Your task to perform on an android device: search for starred emails in the gmail app Image 0: 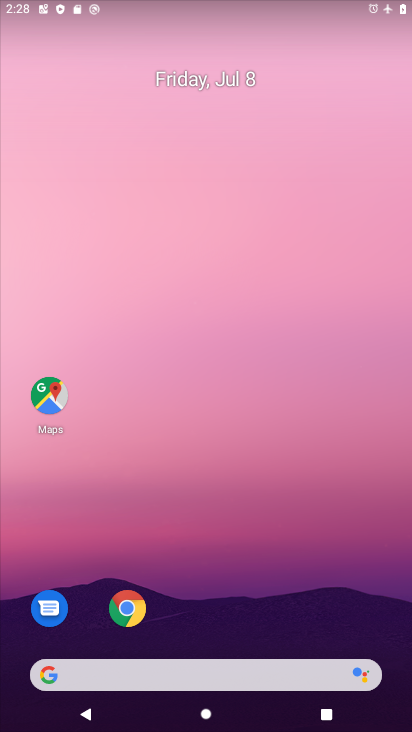
Step 0: drag from (161, 638) to (134, 133)
Your task to perform on an android device: search for starred emails in the gmail app Image 1: 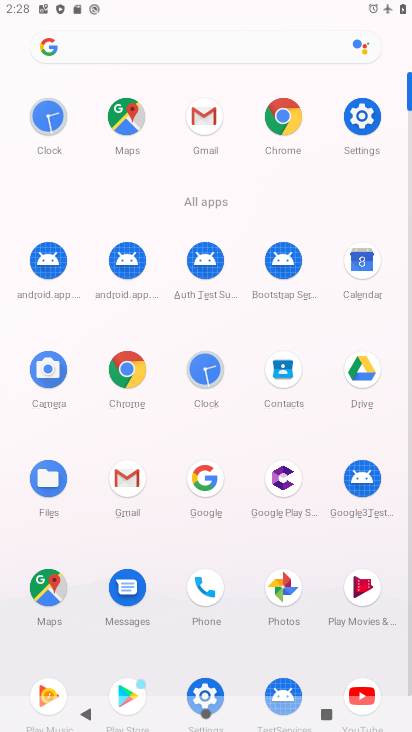
Step 1: click (214, 107)
Your task to perform on an android device: search for starred emails in the gmail app Image 2: 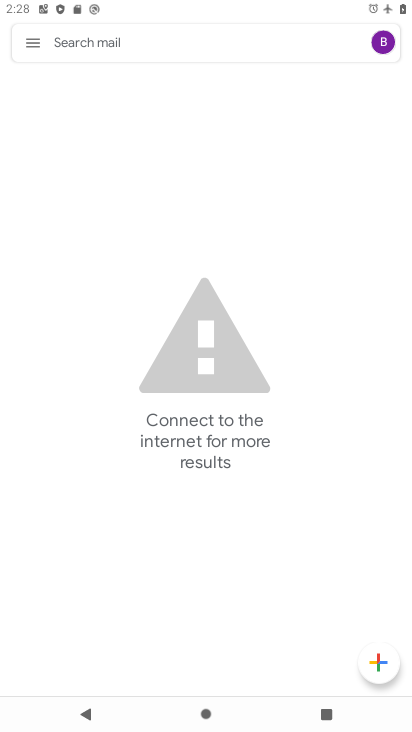
Step 2: click (24, 47)
Your task to perform on an android device: search for starred emails in the gmail app Image 3: 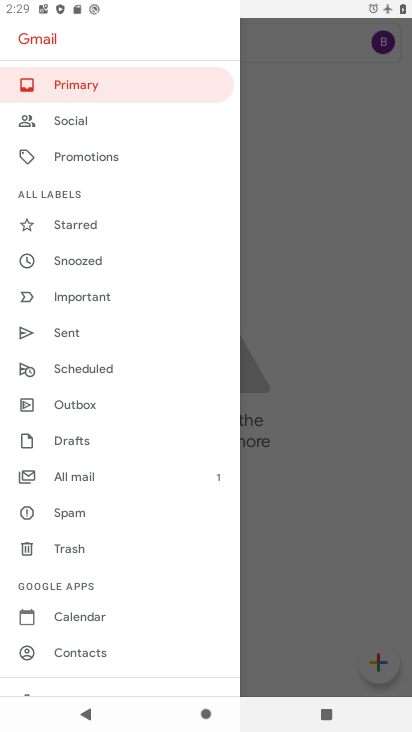
Step 3: click (105, 234)
Your task to perform on an android device: search for starred emails in the gmail app Image 4: 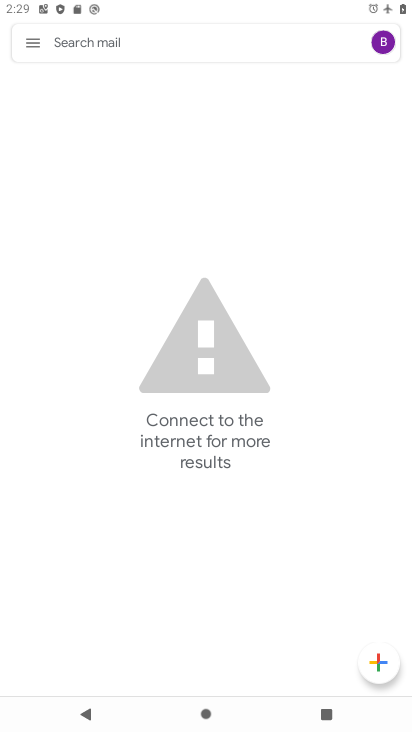
Step 4: drag from (189, 14) to (153, 678)
Your task to perform on an android device: search for starred emails in the gmail app Image 5: 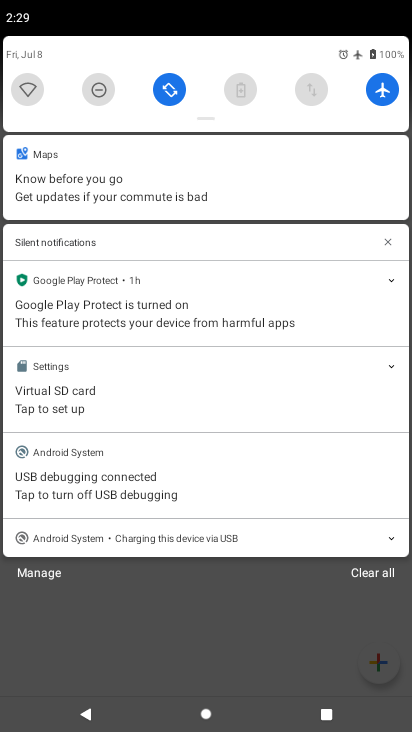
Step 5: click (373, 101)
Your task to perform on an android device: search for starred emails in the gmail app Image 6: 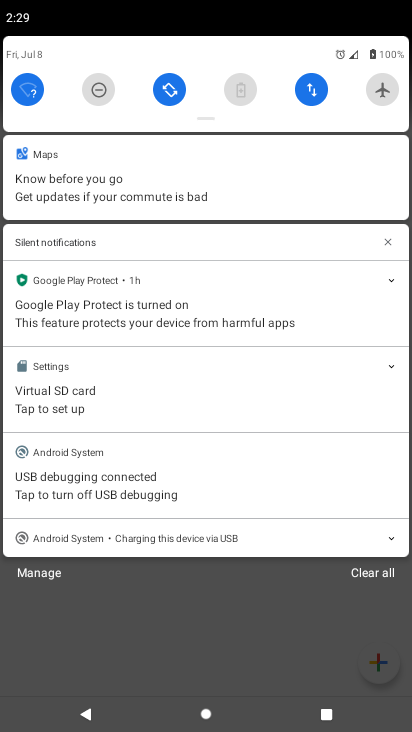
Step 6: task complete